Your task to perform on an android device: Open calendar and show me the second week of next month Image 0: 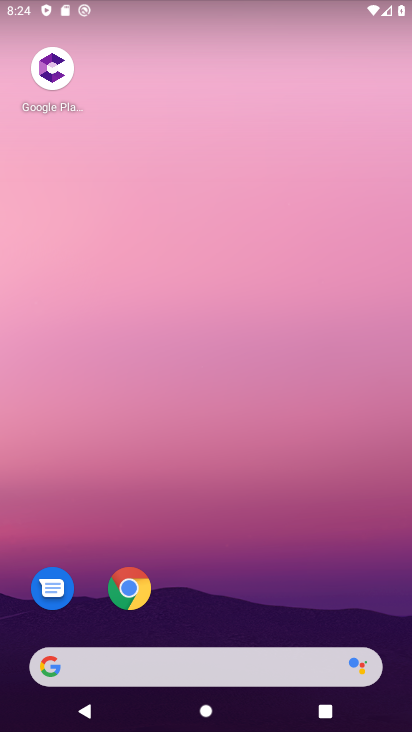
Step 0: drag from (257, 597) to (345, 16)
Your task to perform on an android device: Open calendar and show me the second week of next month Image 1: 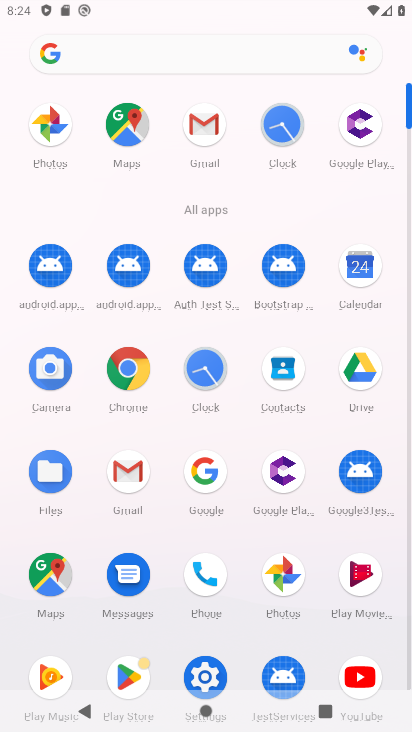
Step 1: click (359, 267)
Your task to perform on an android device: Open calendar and show me the second week of next month Image 2: 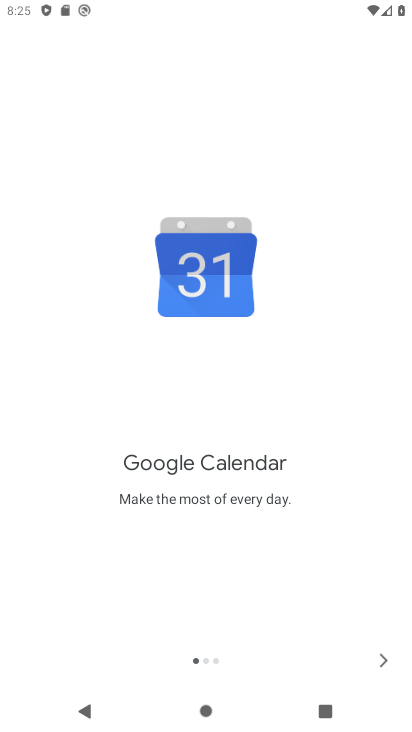
Step 2: click (387, 667)
Your task to perform on an android device: Open calendar and show me the second week of next month Image 3: 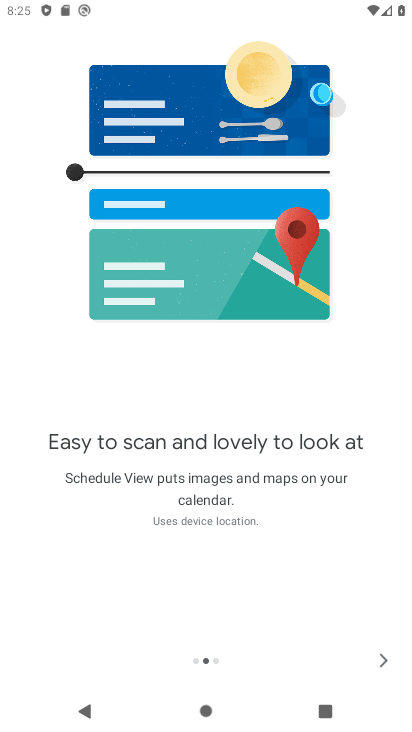
Step 3: click (387, 667)
Your task to perform on an android device: Open calendar and show me the second week of next month Image 4: 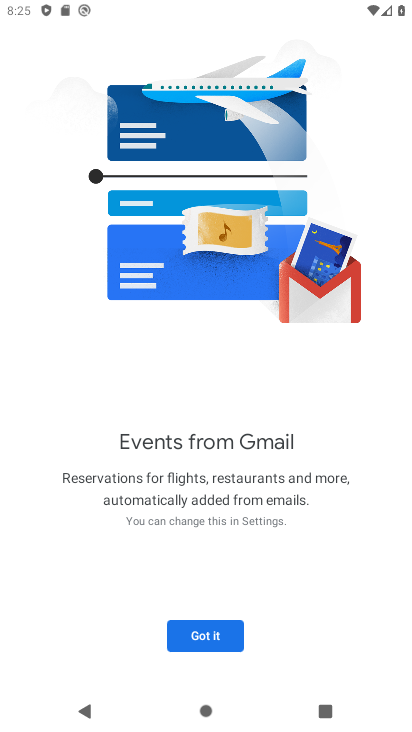
Step 4: click (219, 636)
Your task to perform on an android device: Open calendar and show me the second week of next month Image 5: 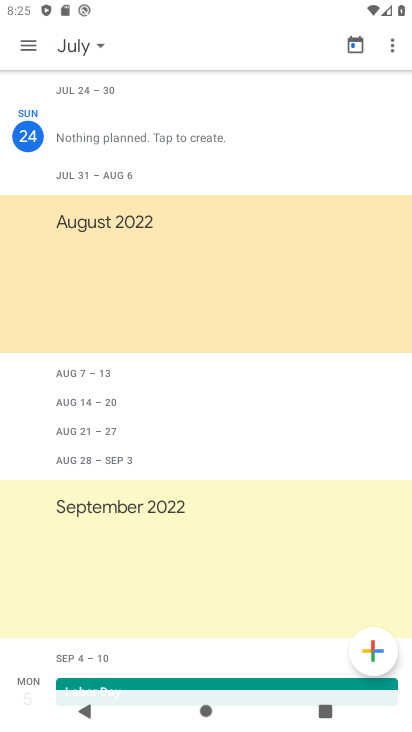
Step 5: click (75, 48)
Your task to perform on an android device: Open calendar and show me the second week of next month Image 6: 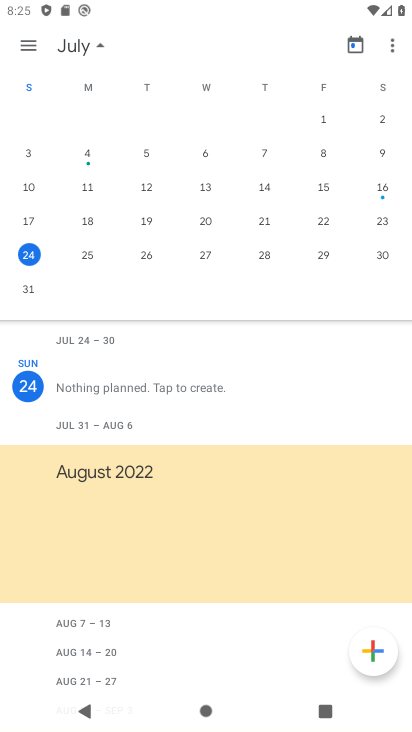
Step 6: drag from (405, 218) to (27, 272)
Your task to perform on an android device: Open calendar and show me the second week of next month Image 7: 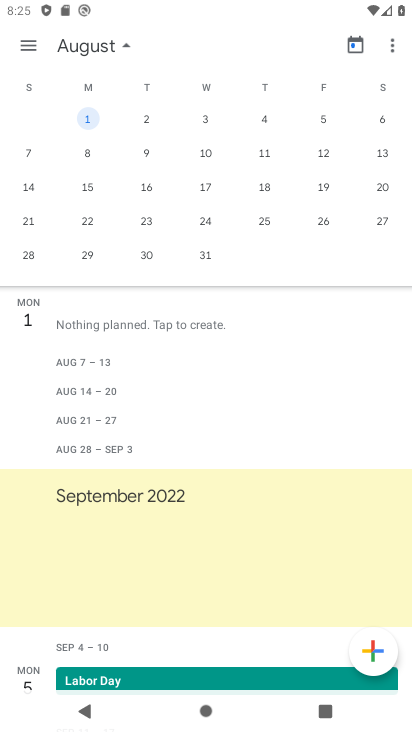
Step 7: click (30, 154)
Your task to perform on an android device: Open calendar and show me the second week of next month Image 8: 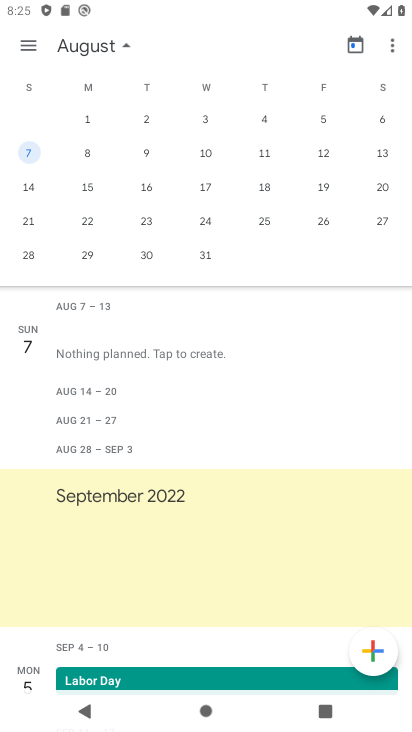
Step 8: task complete